Your task to perform on an android device: Go to Yahoo.com Image 0: 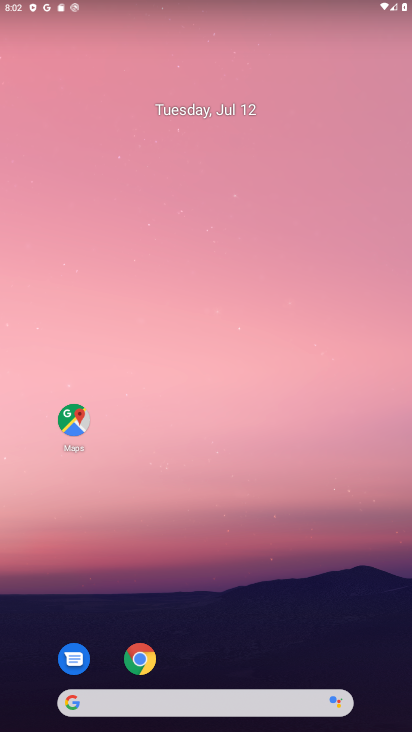
Step 0: click (412, 543)
Your task to perform on an android device: Go to Yahoo.com Image 1: 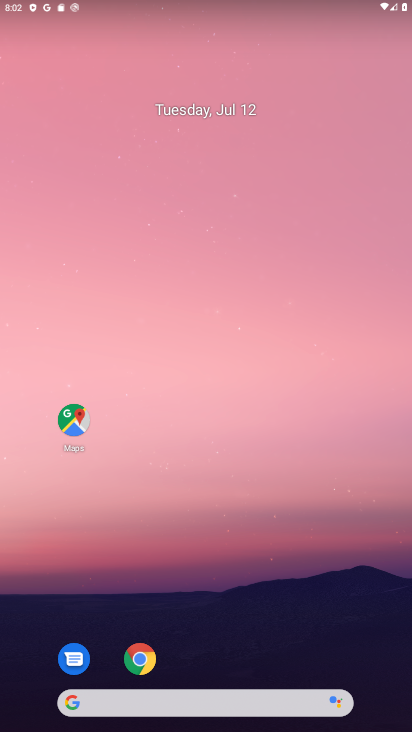
Step 1: drag from (220, 706) to (151, 266)
Your task to perform on an android device: Go to Yahoo.com Image 2: 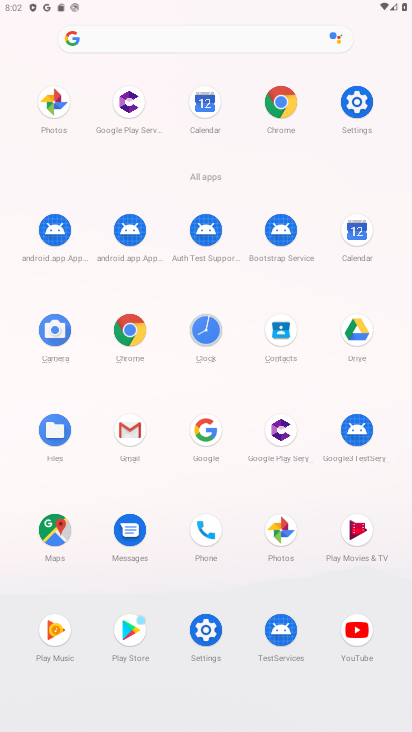
Step 2: click (126, 326)
Your task to perform on an android device: Go to Yahoo.com Image 3: 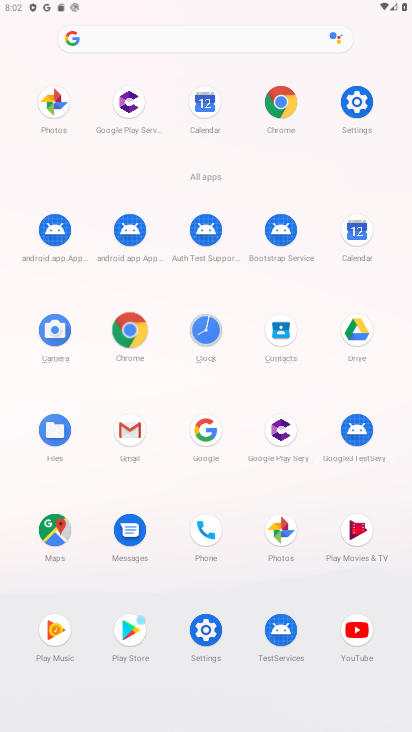
Step 3: click (126, 325)
Your task to perform on an android device: Go to Yahoo.com Image 4: 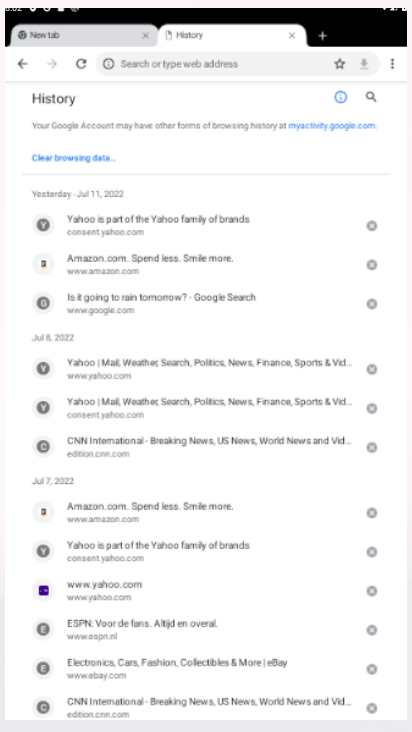
Step 4: click (127, 323)
Your task to perform on an android device: Go to Yahoo.com Image 5: 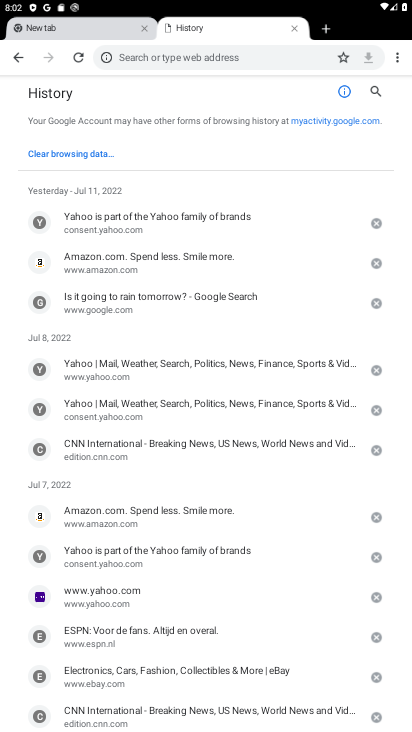
Step 5: click (15, 58)
Your task to perform on an android device: Go to Yahoo.com Image 6: 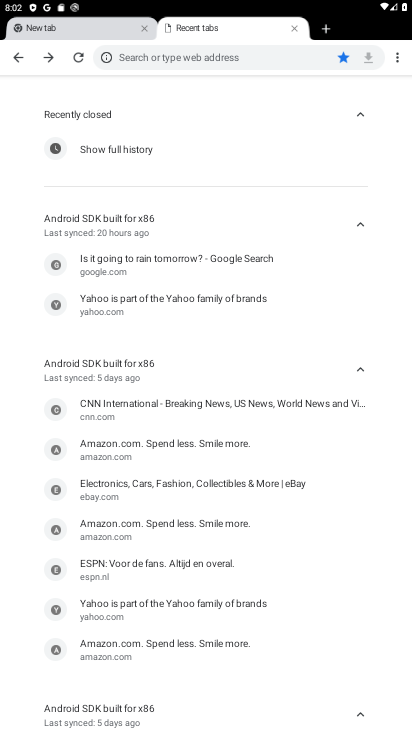
Step 6: drag from (397, 52) to (283, 55)
Your task to perform on an android device: Go to Yahoo.com Image 7: 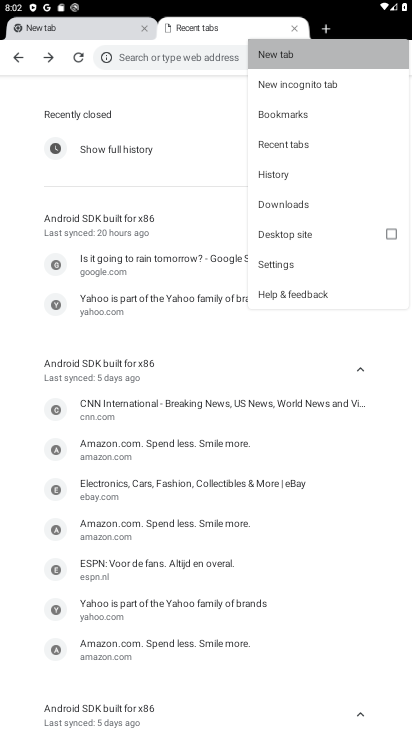
Step 7: click (283, 55)
Your task to perform on an android device: Go to Yahoo.com Image 8: 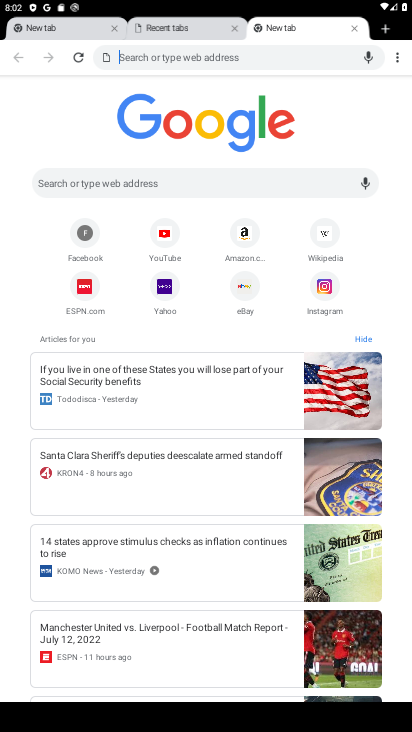
Step 8: click (156, 279)
Your task to perform on an android device: Go to Yahoo.com Image 9: 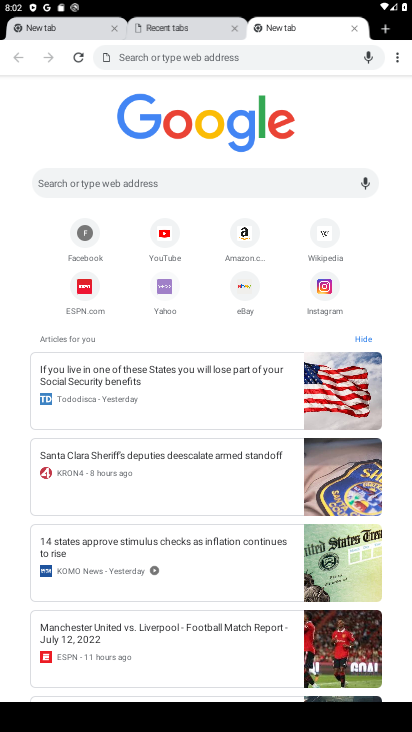
Step 9: click (156, 280)
Your task to perform on an android device: Go to Yahoo.com Image 10: 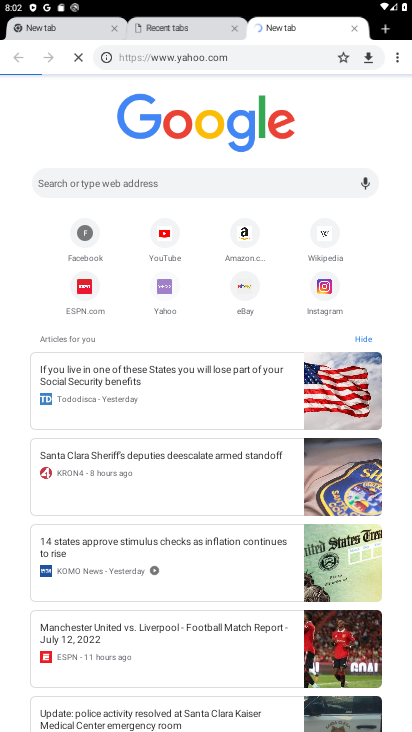
Step 10: click (157, 281)
Your task to perform on an android device: Go to Yahoo.com Image 11: 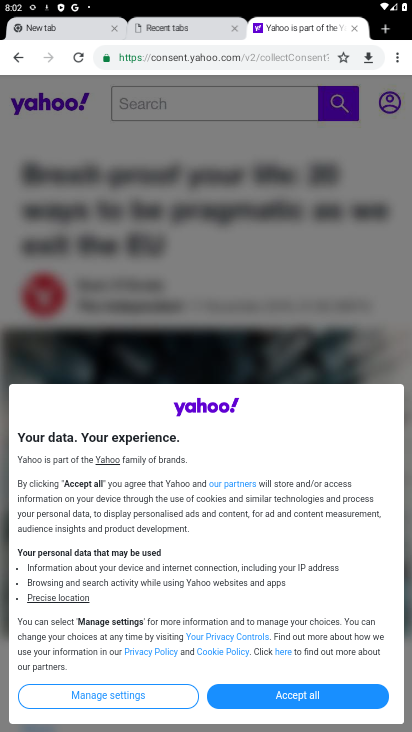
Step 11: task complete